Your task to perform on an android device: Open Amazon Image 0: 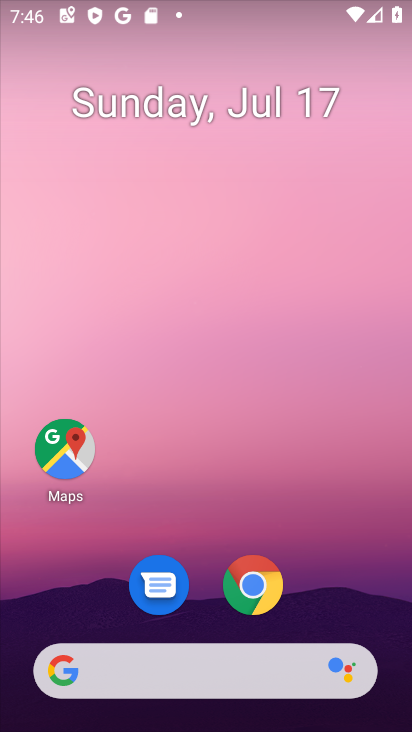
Step 0: click (264, 576)
Your task to perform on an android device: Open Amazon Image 1: 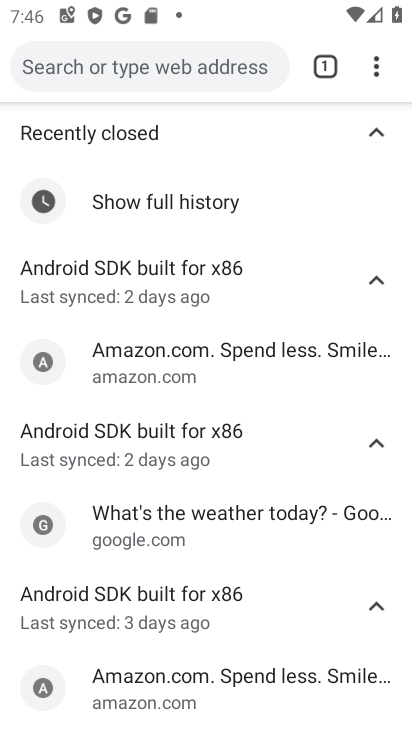
Step 1: click (375, 62)
Your task to perform on an android device: Open Amazon Image 2: 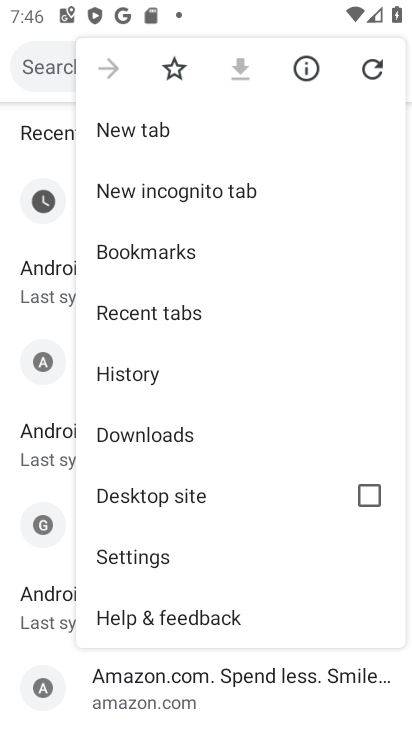
Step 2: click (168, 132)
Your task to perform on an android device: Open Amazon Image 3: 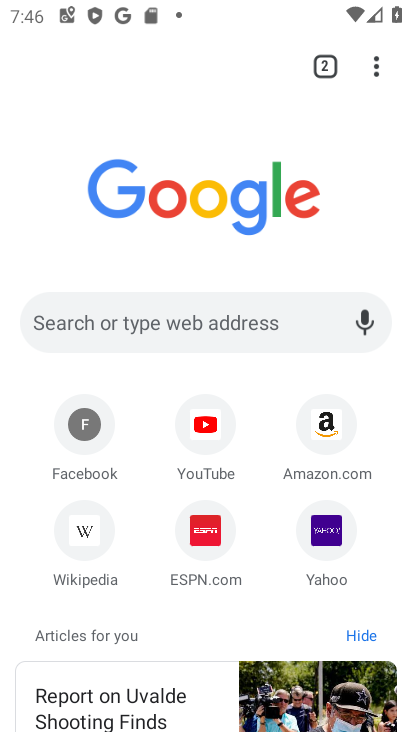
Step 3: click (330, 430)
Your task to perform on an android device: Open Amazon Image 4: 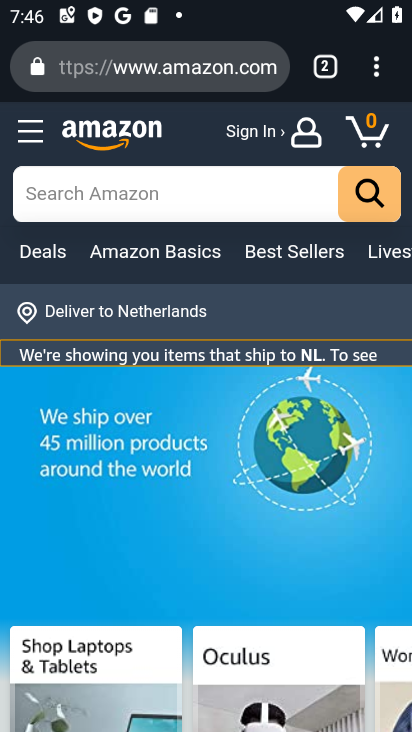
Step 4: task complete